Your task to perform on an android device: Search for "macbook pro" on newegg, select the first entry, add it to the cart, then select checkout. Image 0: 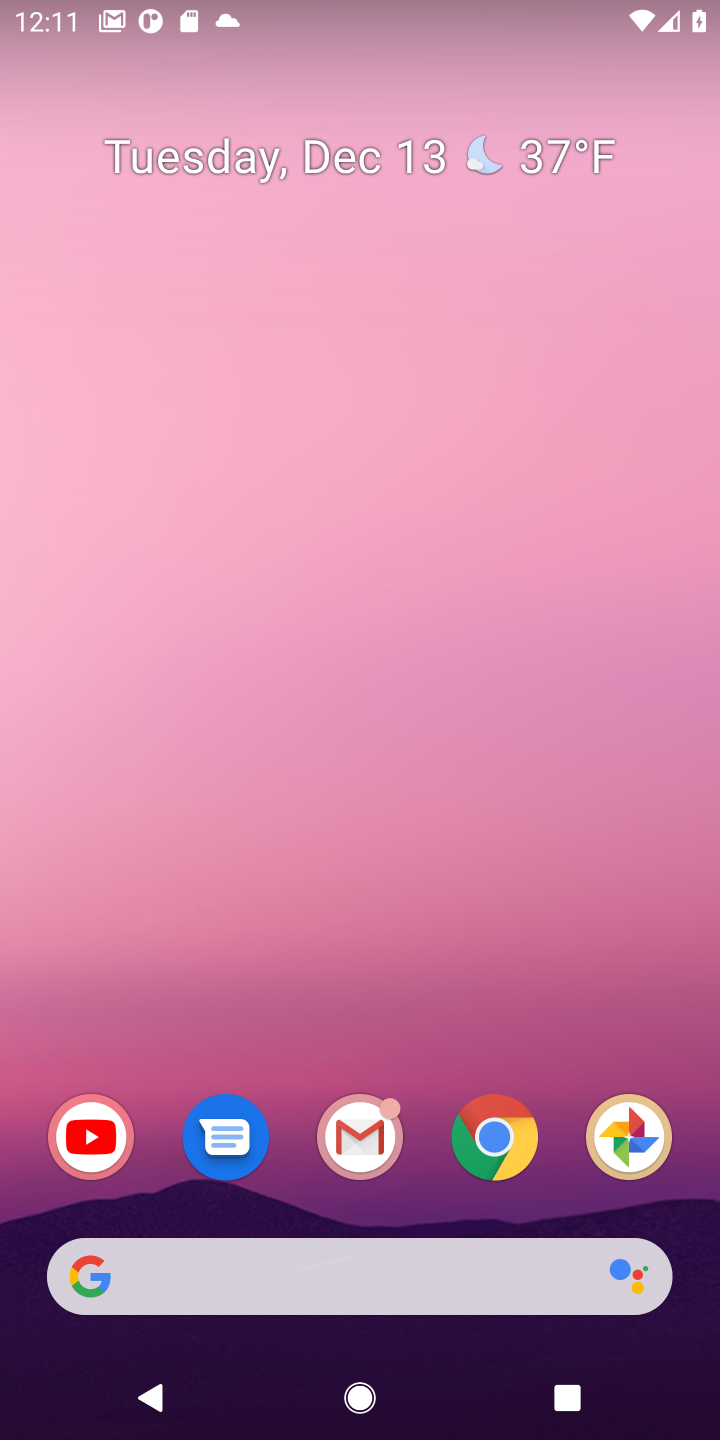
Step 0: click (317, 1276)
Your task to perform on an android device: Search for "macbook pro" on newegg, select the first entry, add it to the cart, then select checkout. Image 1: 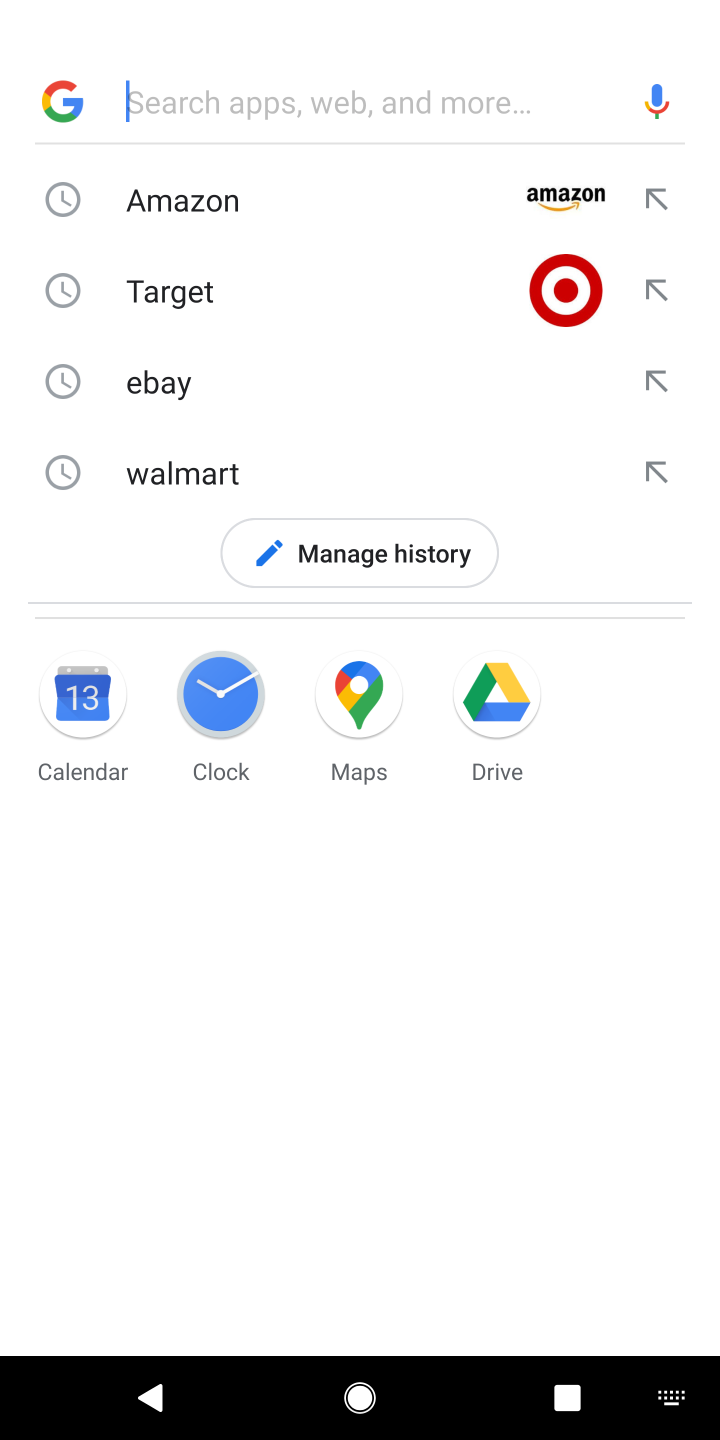
Step 1: type "newegg"
Your task to perform on an android device: Search for "macbook pro" on newegg, select the first entry, add it to the cart, then select checkout. Image 2: 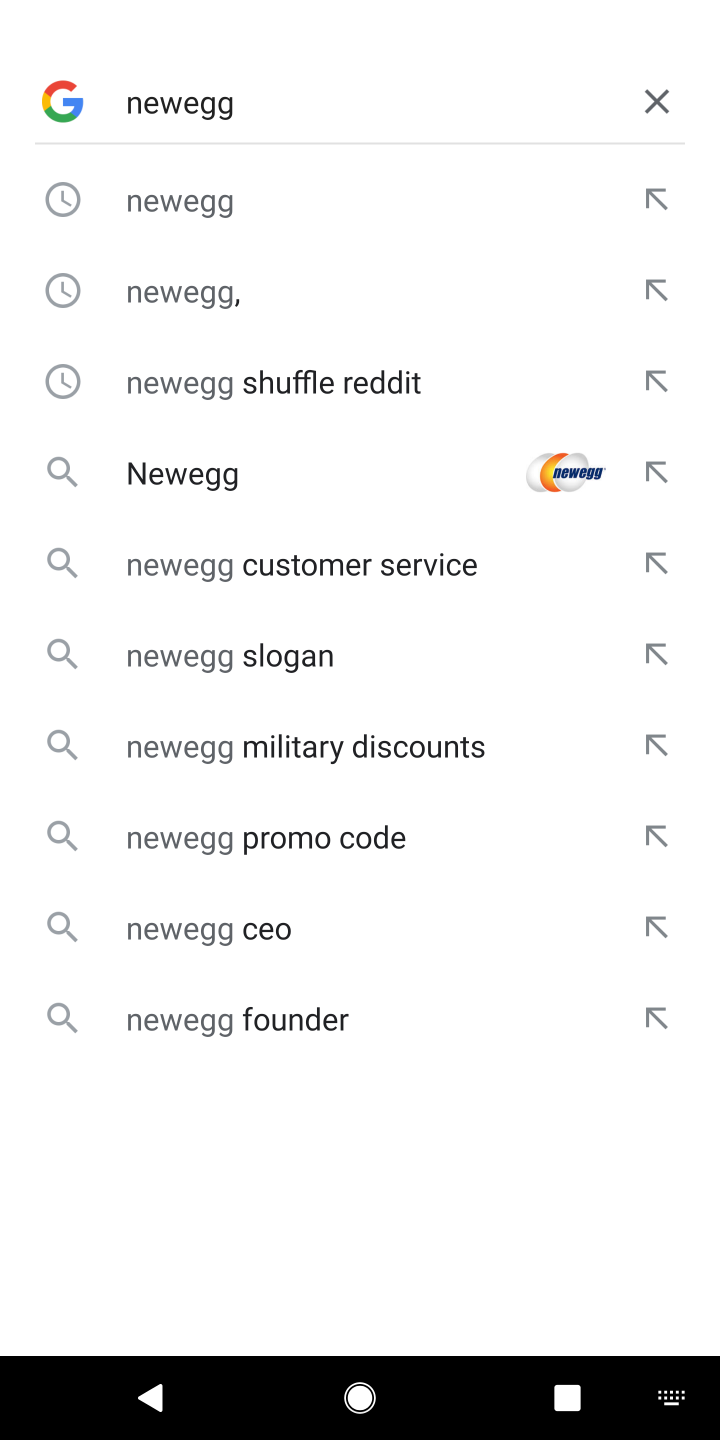
Step 2: click (269, 474)
Your task to perform on an android device: Search for "macbook pro" on newegg, select the first entry, add it to the cart, then select checkout. Image 3: 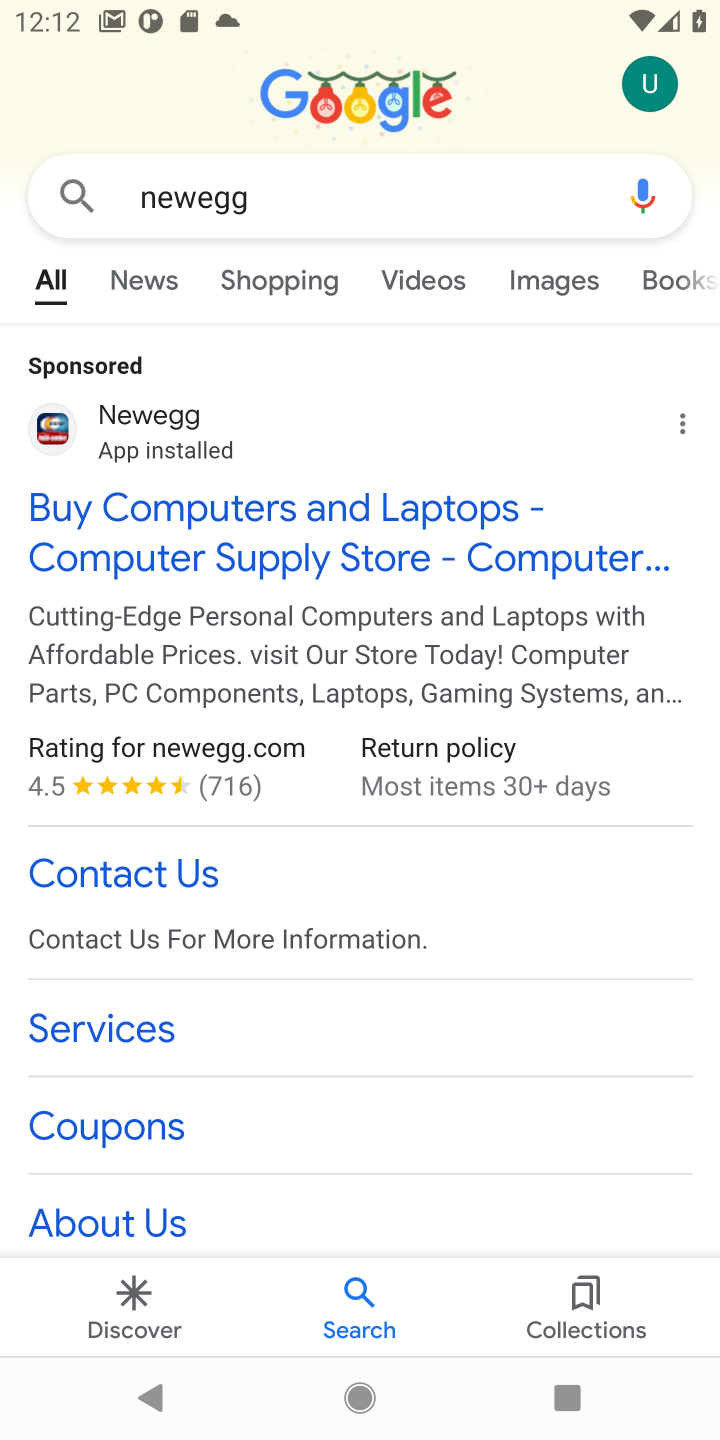
Step 3: click (267, 542)
Your task to perform on an android device: Search for "macbook pro" on newegg, select the first entry, add it to the cart, then select checkout. Image 4: 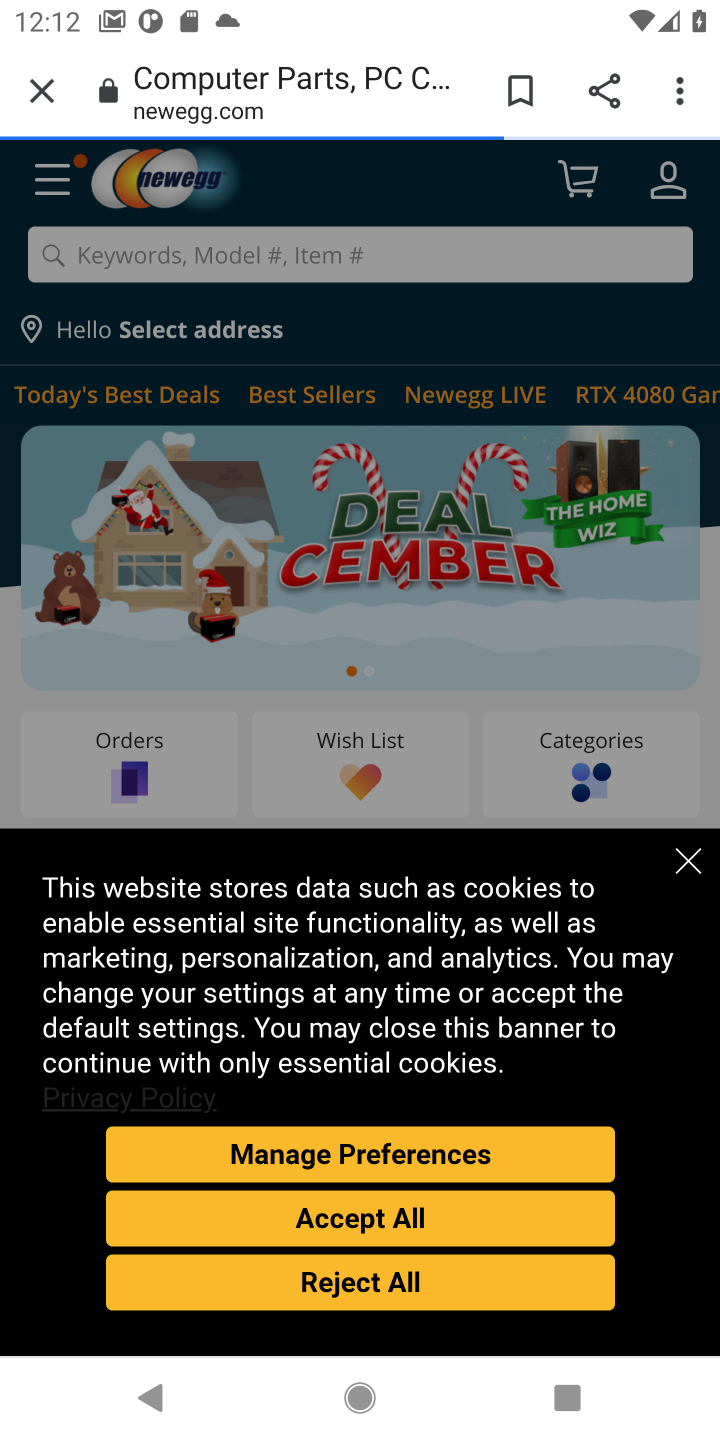
Step 4: click (380, 260)
Your task to perform on an android device: Search for "macbook pro" on newegg, select the first entry, add it to the cart, then select checkout. Image 5: 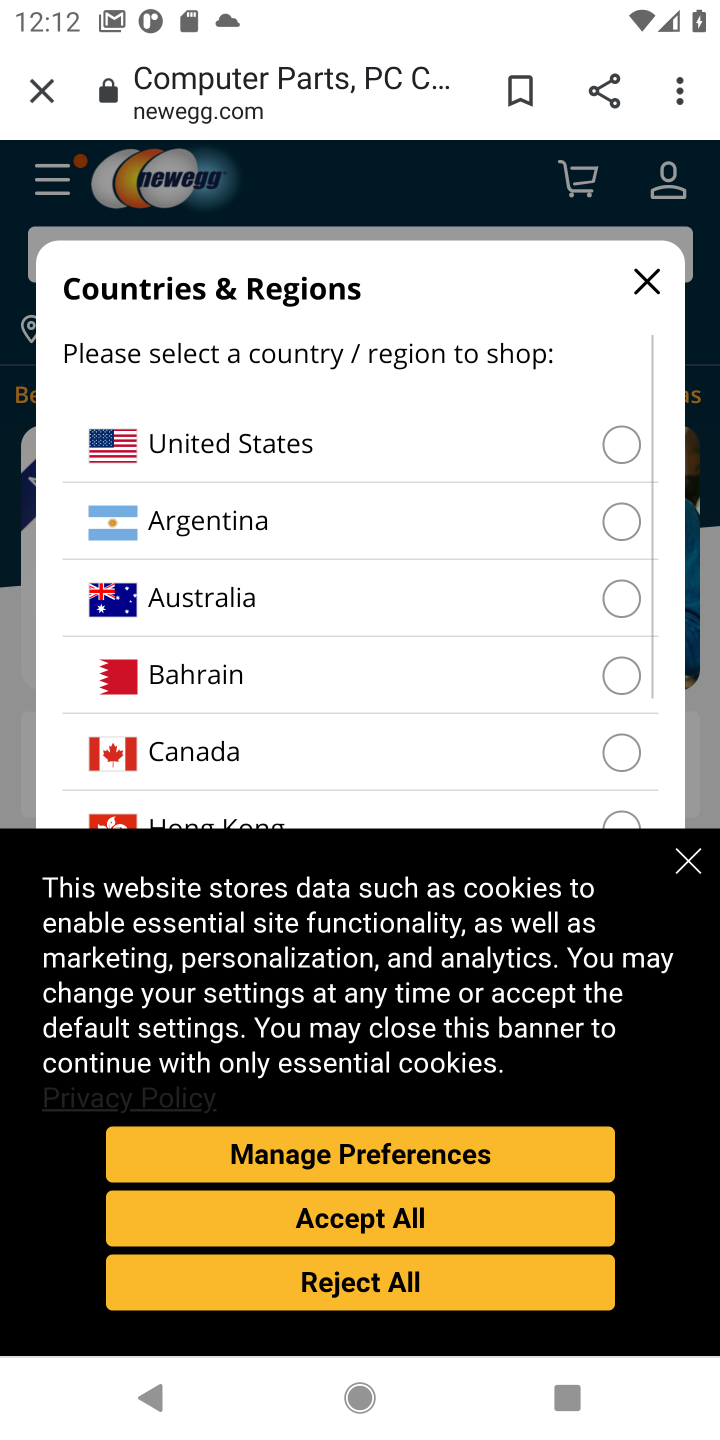
Step 5: click (310, 470)
Your task to perform on an android device: Search for "macbook pro" on newegg, select the first entry, add it to the cart, then select checkout. Image 6: 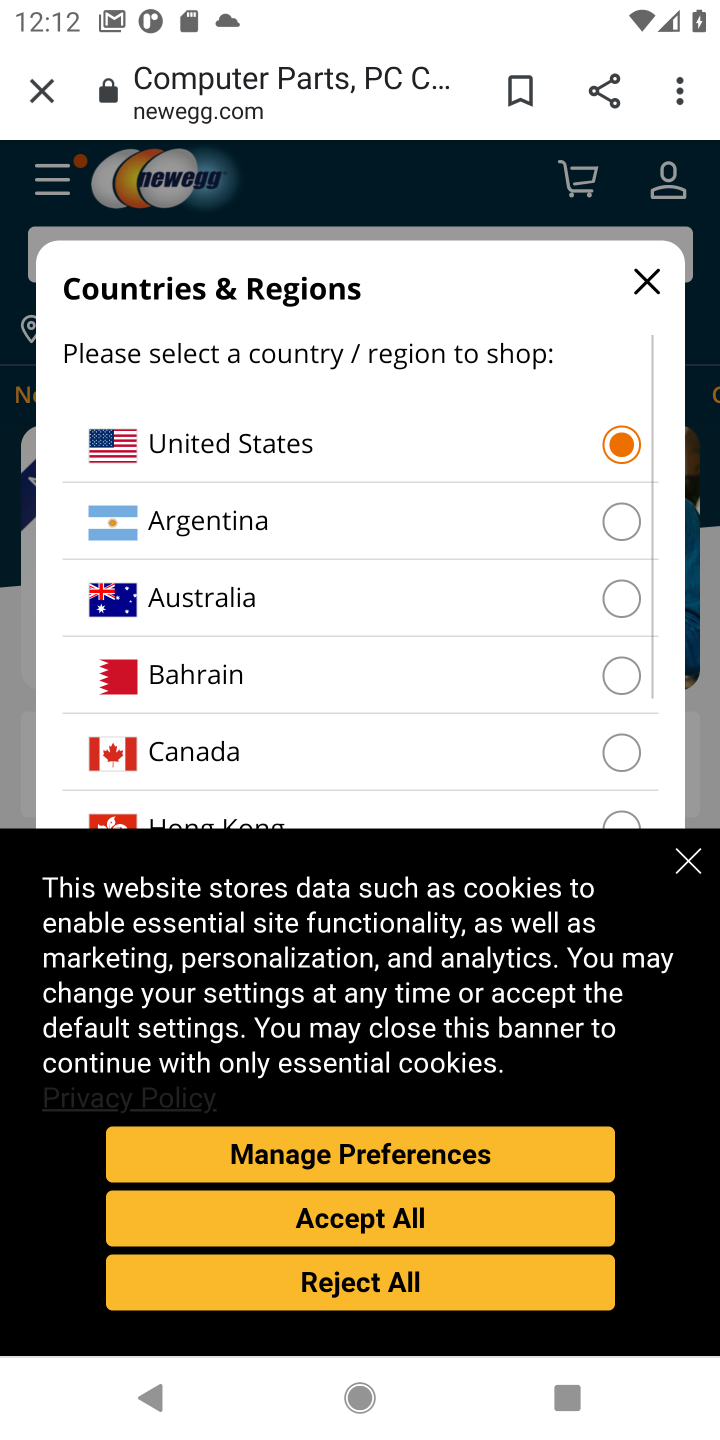
Step 6: click (403, 1228)
Your task to perform on an android device: Search for "macbook pro" on newegg, select the first entry, add it to the cart, then select checkout. Image 7: 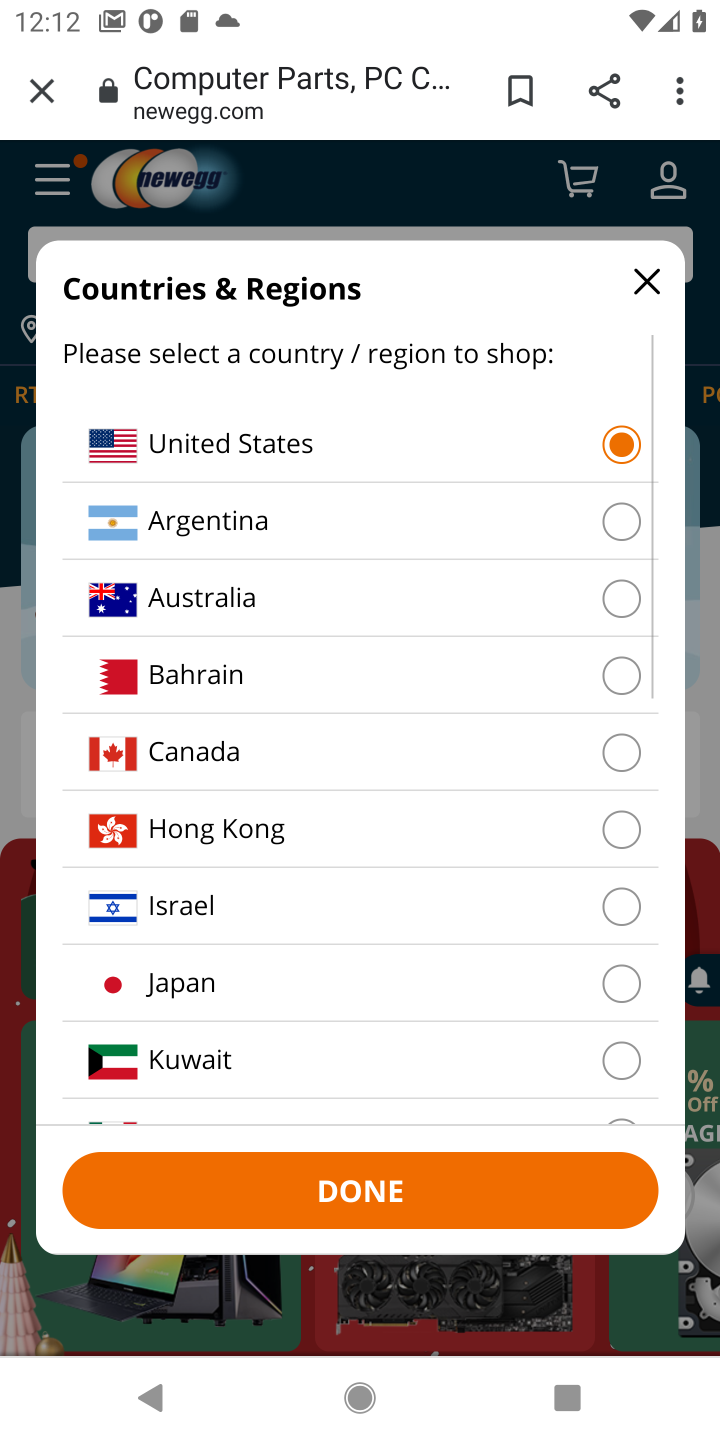
Step 7: click (379, 1178)
Your task to perform on an android device: Search for "macbook pro" on newegg, select the first entry, add it to the cart, then select checkout. Image 8: 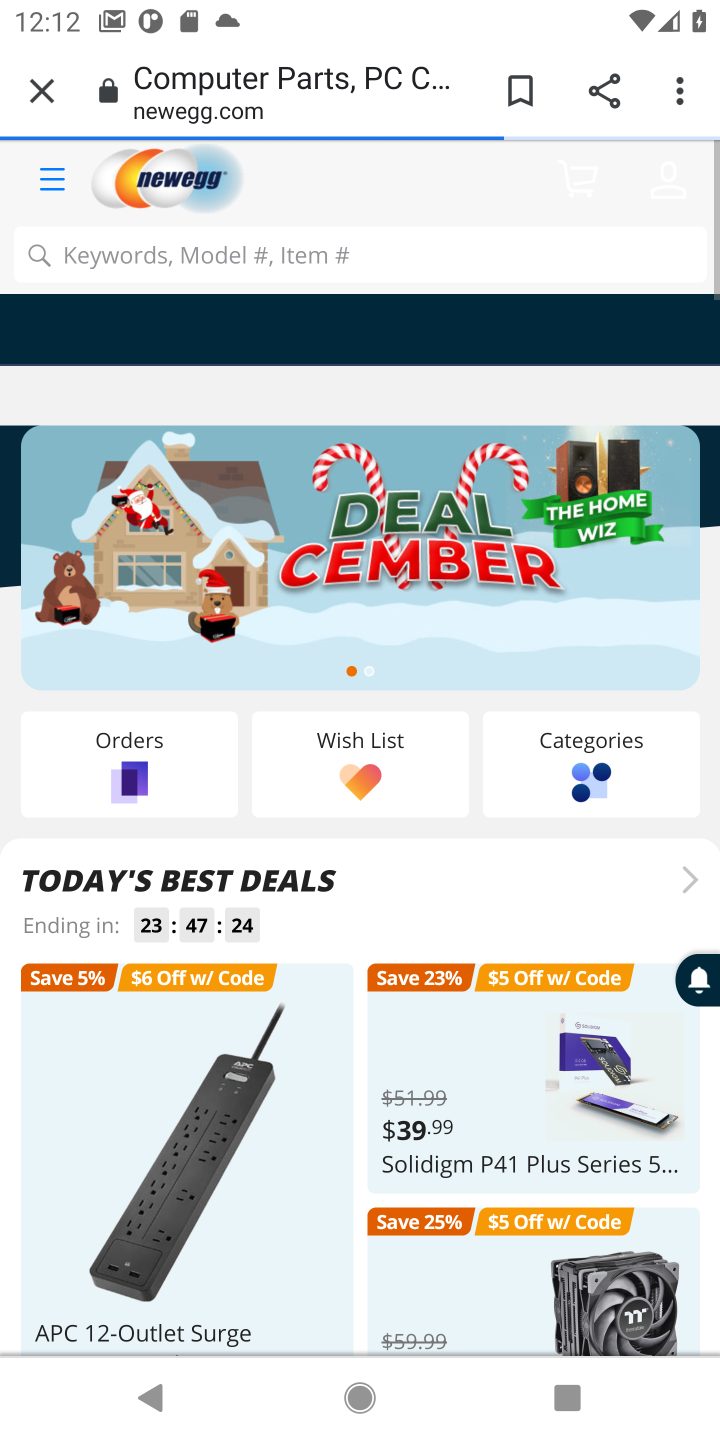
Step 8: click (358, 264)
Your task to perform on an android device: Search for "macbook pro" on newegg, select the first entry, add it to the cart, then select checkout. Image 9: 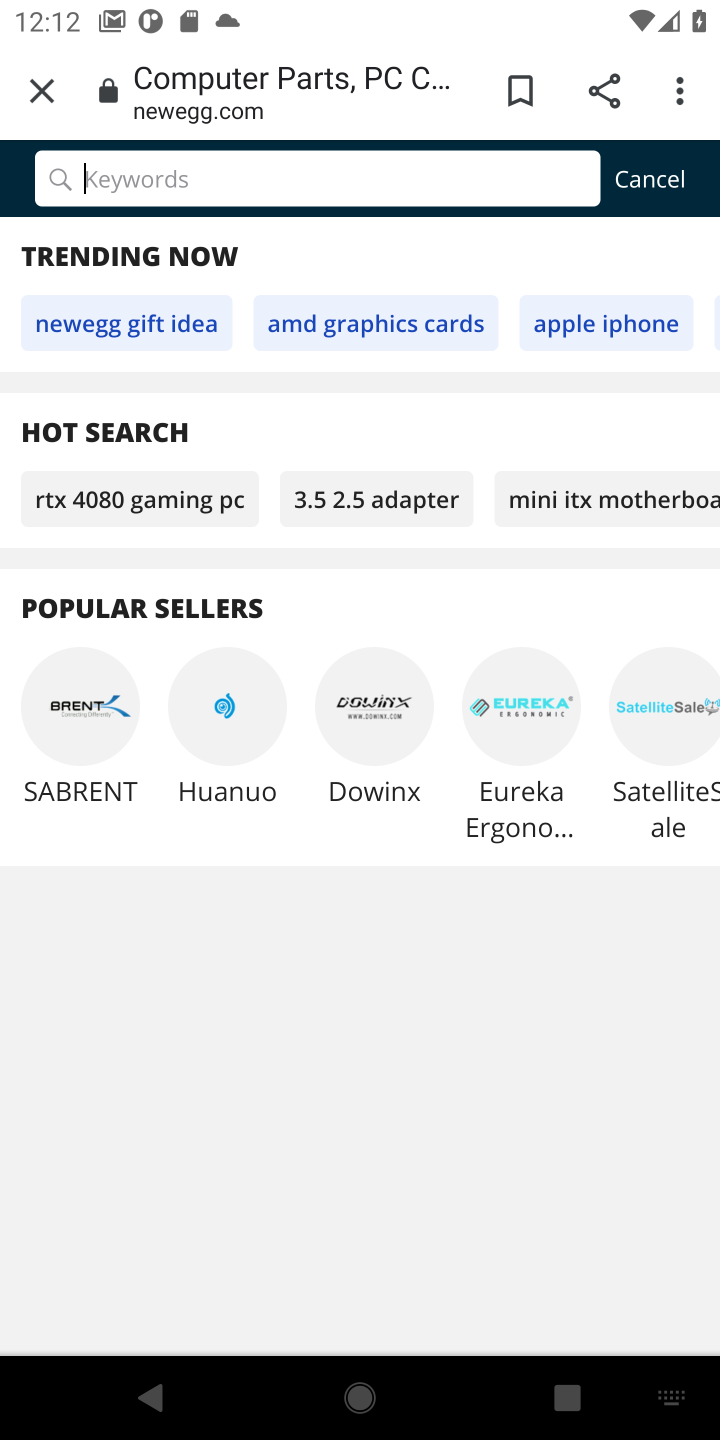
Step 9: type "macbook pro"
Your task to perform on an android device: Search for "macbook pro" on newegg, select the first entry, add it to the cart, then select checkout. Image 10: 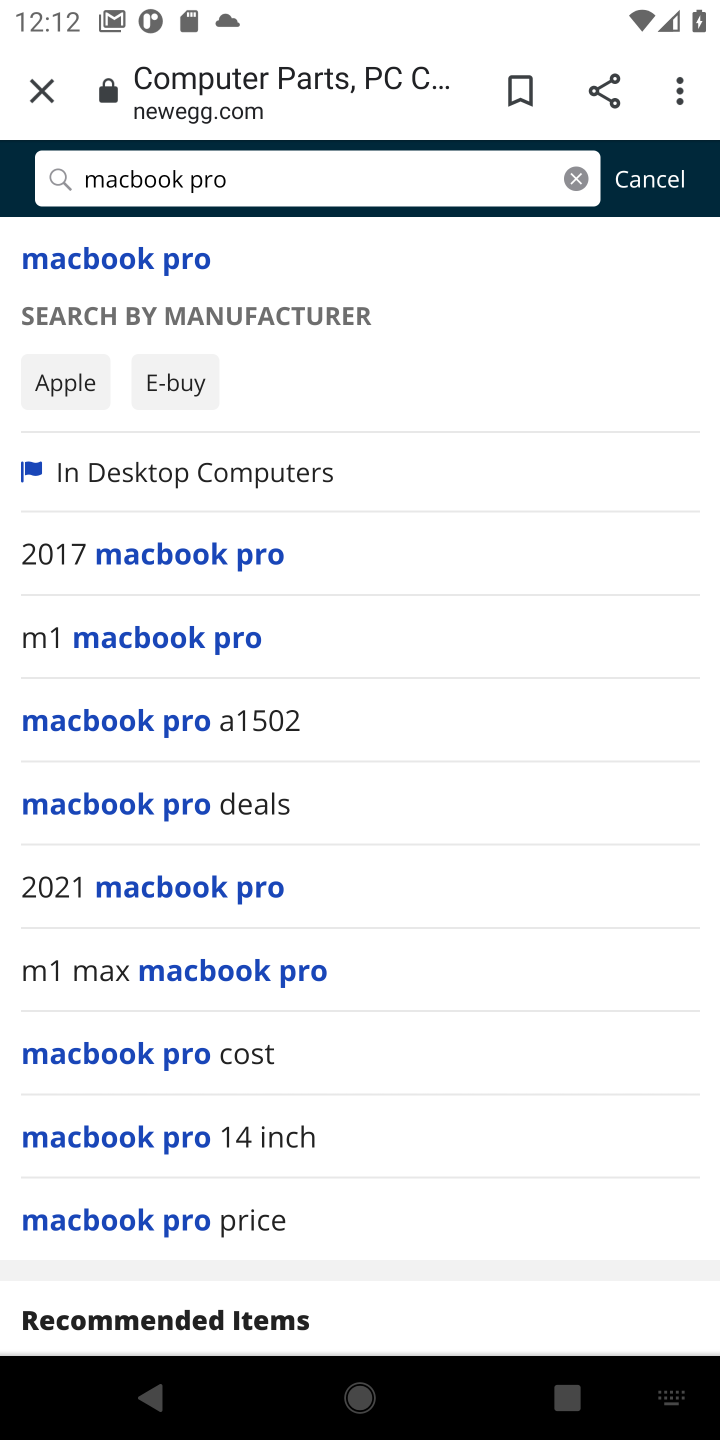
Step 10: click (102, 260)
Your task to perform on an android device: Search for "macbook pro" on newegg, select the first entry, add it to the cart, then select checkout. Image 11: 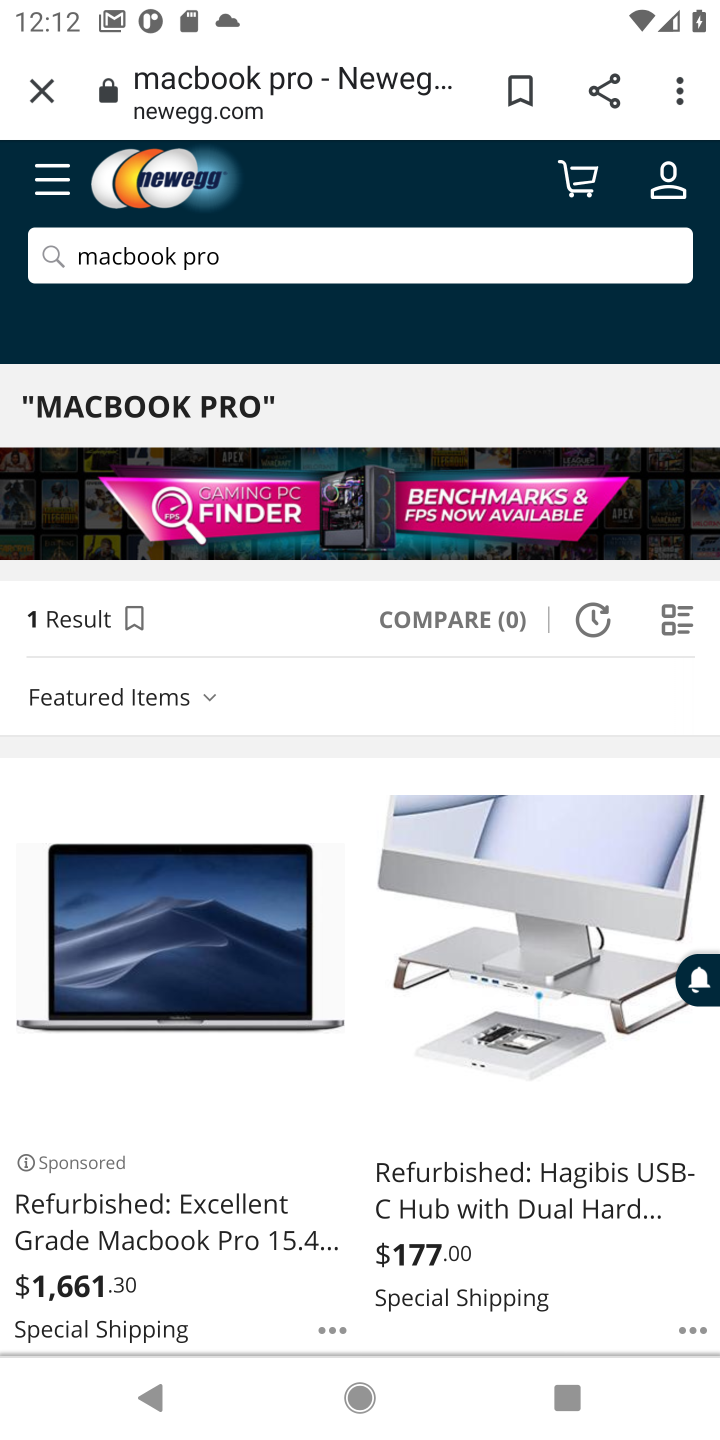
Step 11: task complete